Your task to perform on an android device: What's on my calendar today? Image 0: 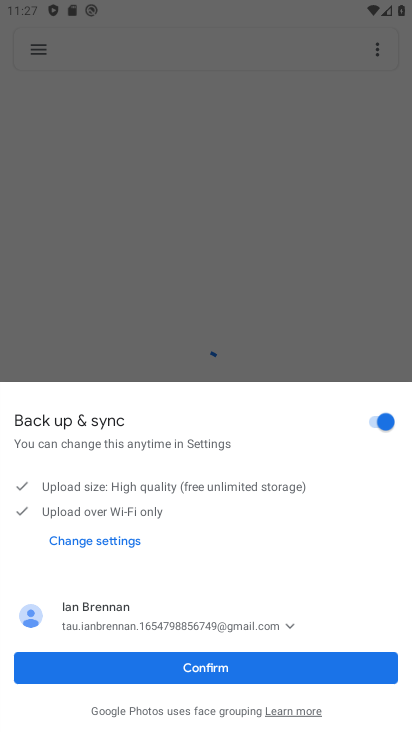
Step 0: press home button
Your task to perform on an android device: What's on my calendar today? Image 1: 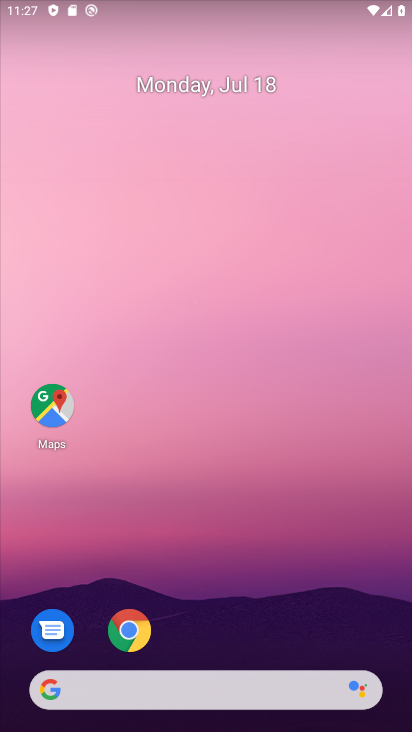
Step 1: drag from (282, 648) to (227, 168)
Your task to perform on an android device: What's on my calendar today? Image 2: 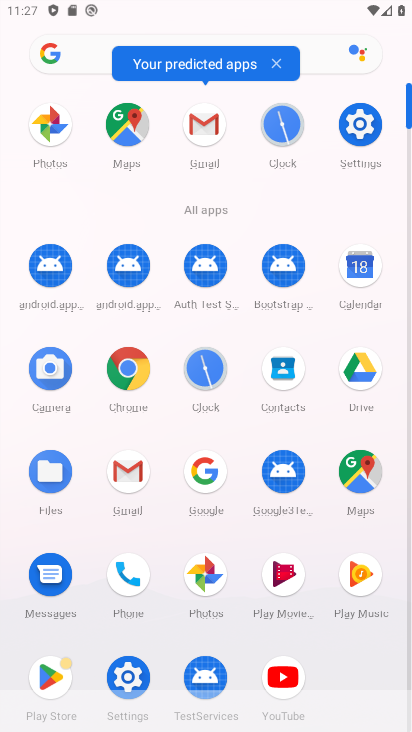
Step 2: click (356, 262)
Your task to perform on an android device: What's on my calendar today? Image 3: 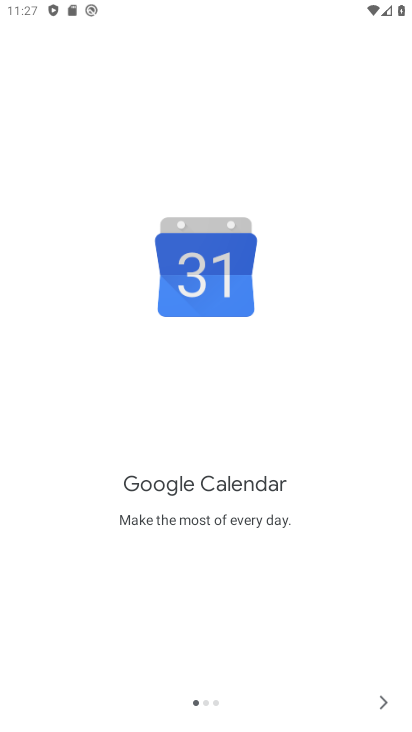
Step 3: click (380, 703)
Your task to perform on an android device: What's on my calendar today? Image 4: 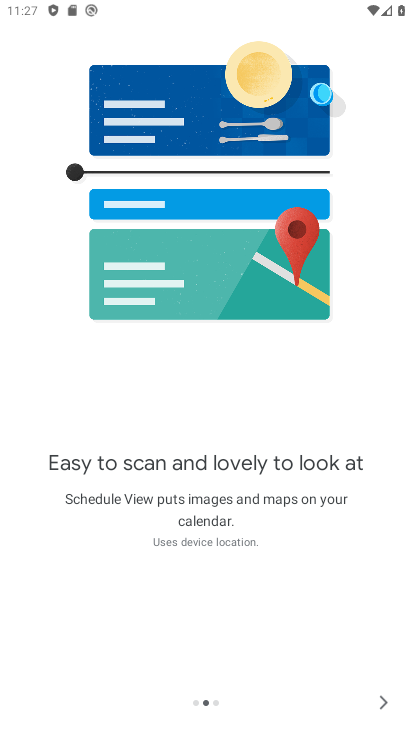
Step 4: click (380, 703)
Your task to perform on an android device: What's on my calendar today? Image 5: 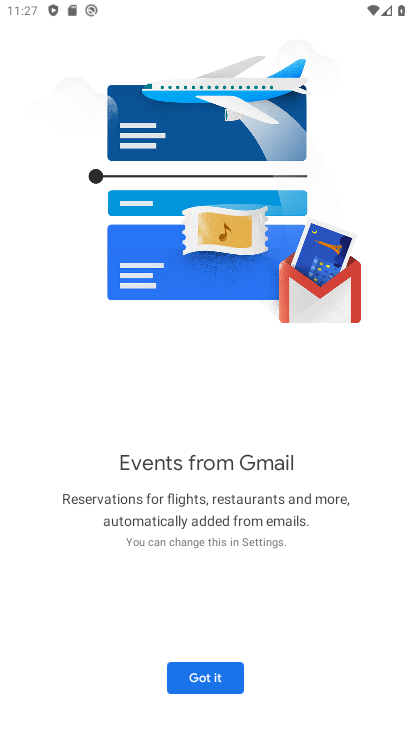
Step 5: click (210, 689)
Your task to perform on an android device: What's on my calendar today? Image 6: 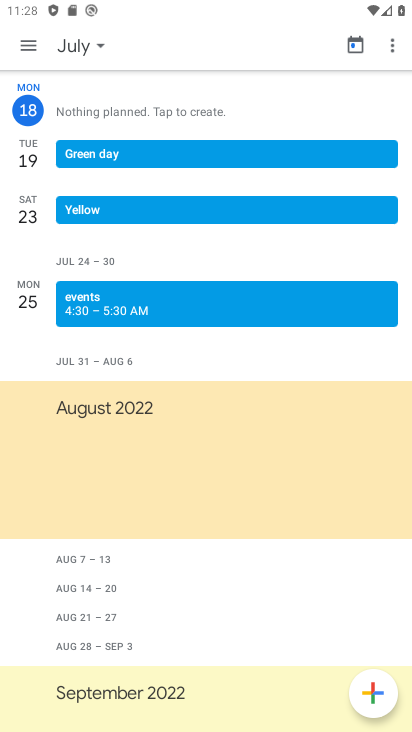
Step 6: click (26, 38)
Your task to perform on an android device: What's on my calendar today? Image 7: 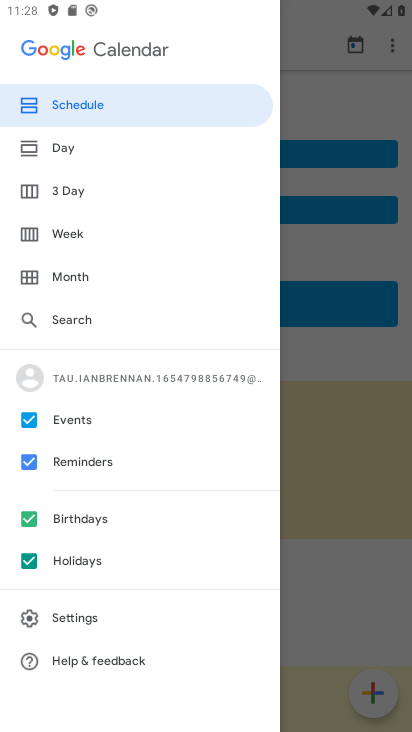
Step 7: click (67, 142)
Your task to perform on an android device: What's on my calendar today? Image 8: 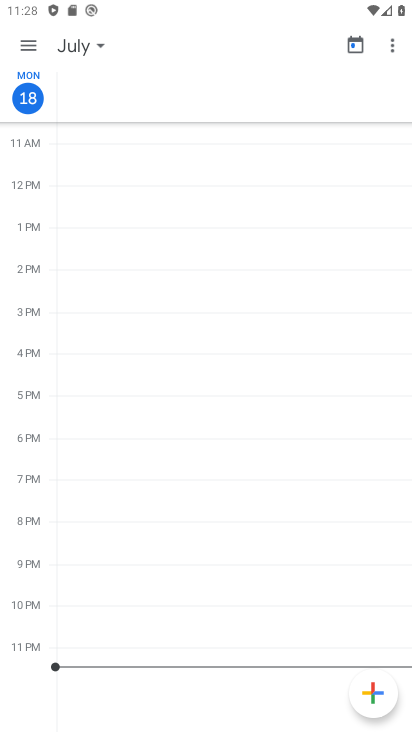
Step 8: task complete